Your task to perform on an android device: Search for sushi restaurants on Maps Image 0: 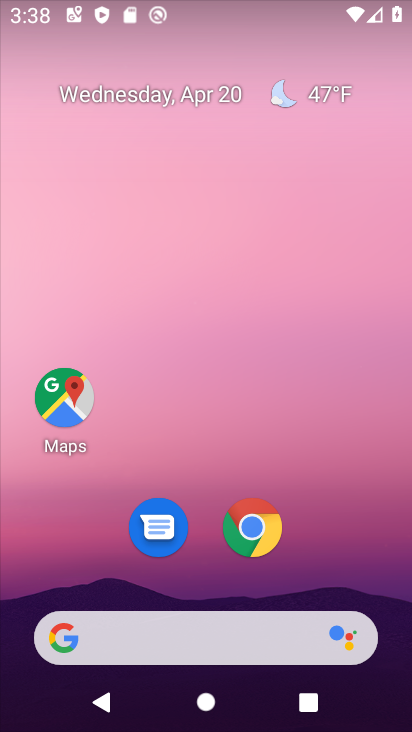
Step 0: click (61, 406)
Your task to perform on an android device: Search for sushi restaurants on Maps Image 1: 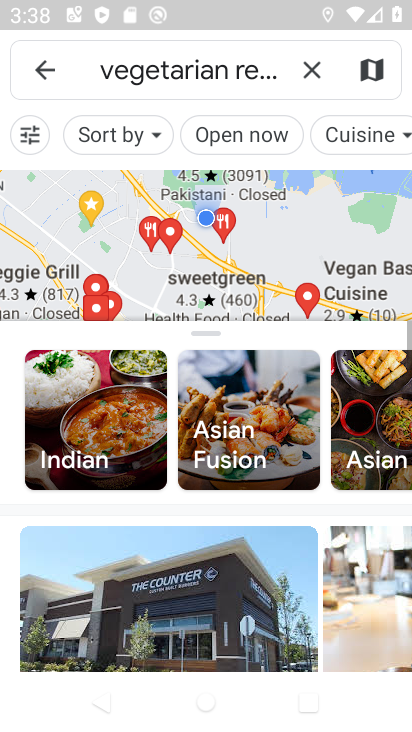
Step 1: click (310, 75)
Your task to perform on an android device: Search for sushi restaurants on Maps Image 2: 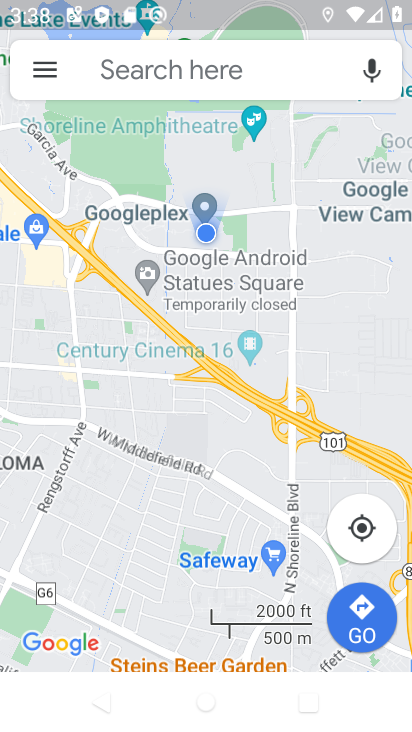
Step 2: click (187, 66)
Your task to perform on an android device: Search for sushi restaurants on Maps Image 3: 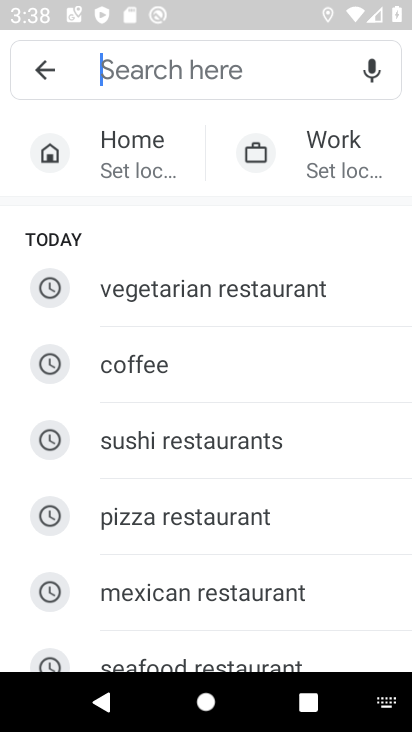
Step 3: click (181, 440)
Your task to perform on an android device: Search for sushi restaurants on Maps Image 4: 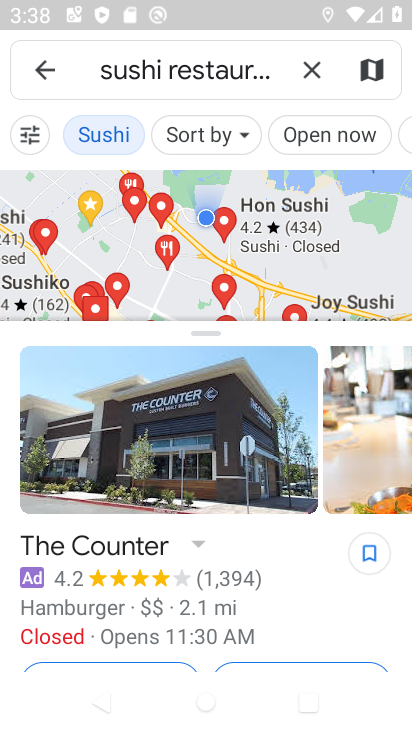
Step 4: task complete